Your task to perform on an android device: Search for pizza restaurants on Maps Image 0: 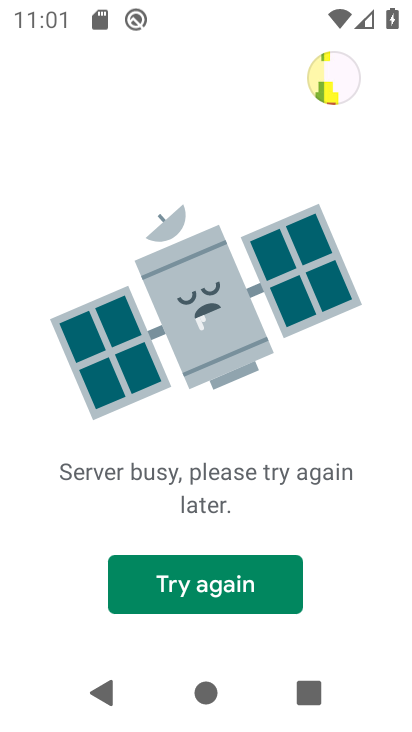
Step 0: press home button
Your task to perform on an android device: Search for pizza restaurants on Maps Image 1: 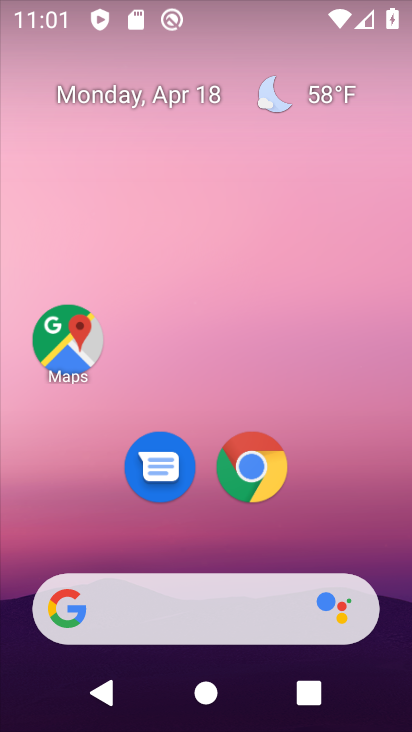
Step 1: click (66, 318)
Your task to perform on an android device: Search for pizza restaurants on Maps Image 2: 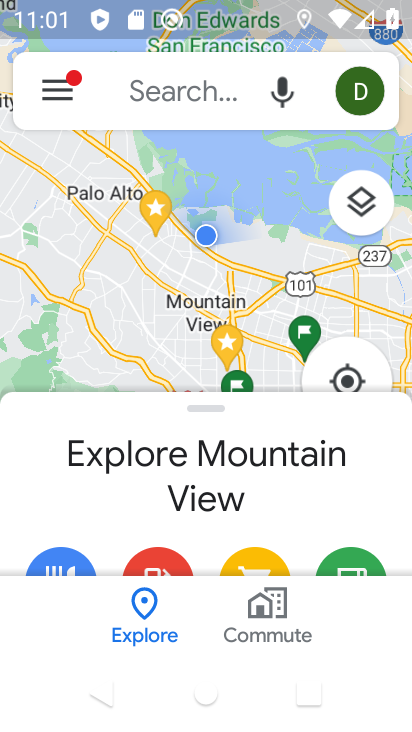
Step 2: click (163, 90)
Your task to perform on an android device: Search for pizza restaurants on Maps Image 3: 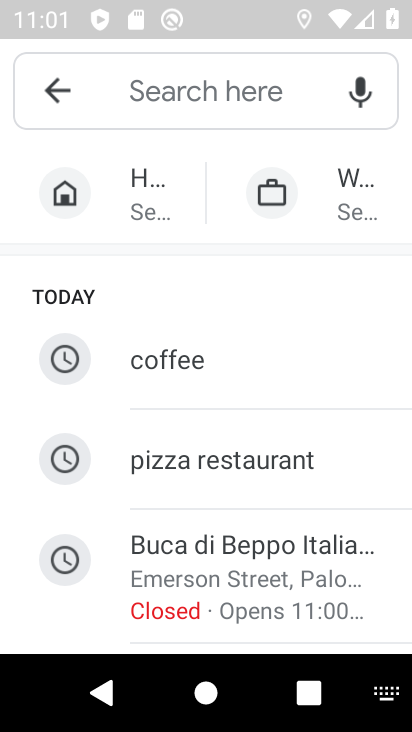
Step 3: click (187, 453)
Your task to perform on an android device: Search for pizza restaurants on Maps Image 4: 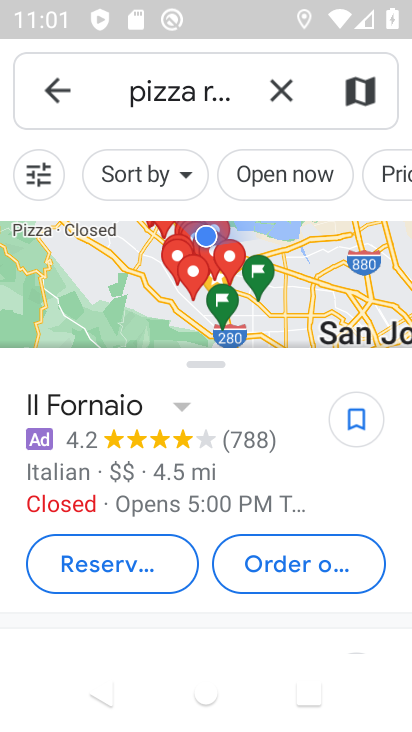
Step 4: task complete